Your task to perform on an android device: turn off javascript in the chrome app Image 0: 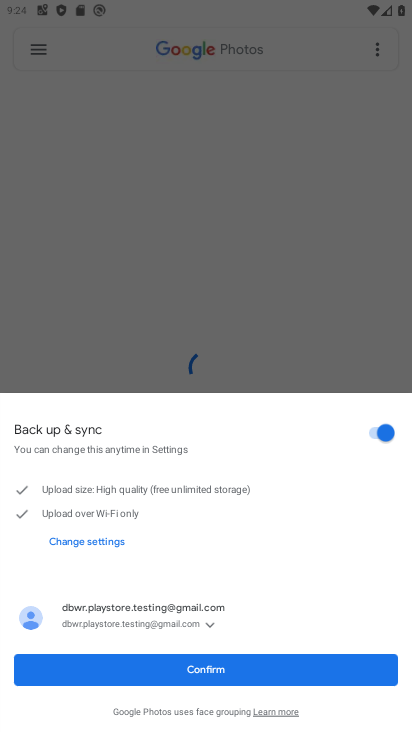
Step 0: press home button
Your task to perform on an android device: turn off javascript in the chrome app Image 1: 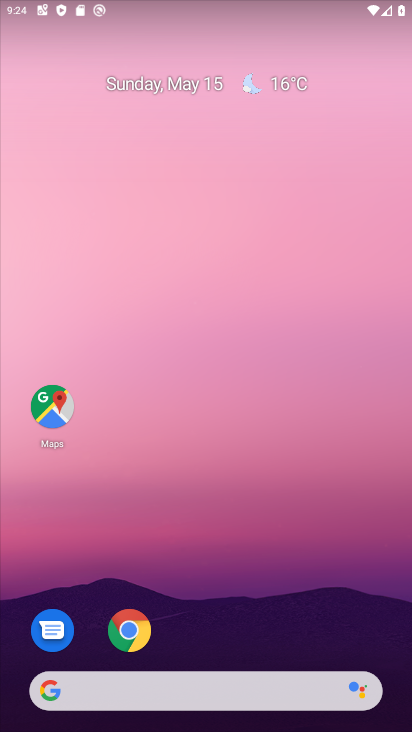
Step 1: click (145, 629)
Your task to perform on an android device: turn off javascript in the chrome app Image 2: 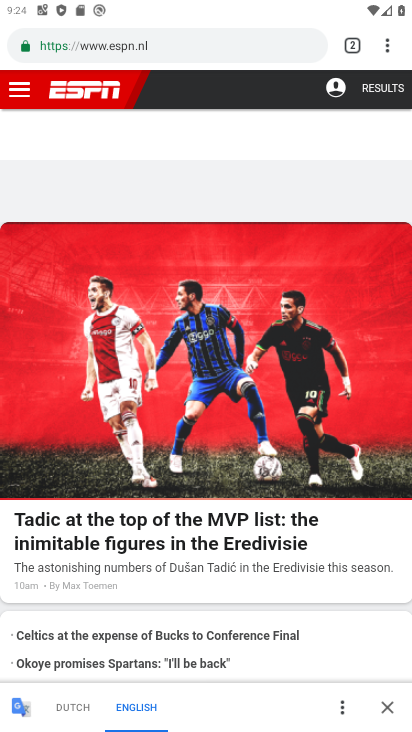
Step 2: drag from (381, 49) to (227, 505)
Your task to perform on an android device: turn off javascript in the chrome app Image 3: 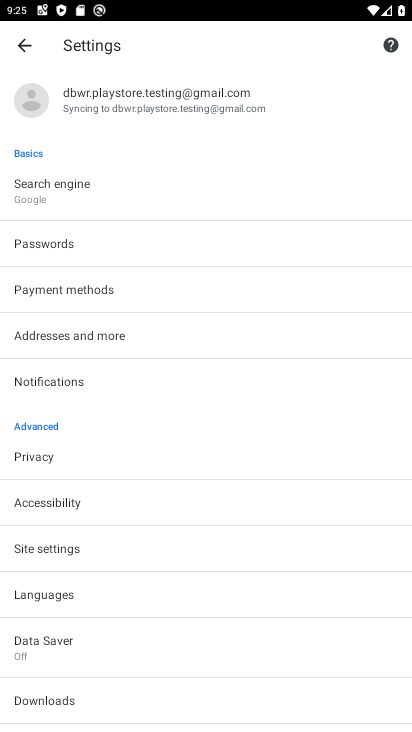
Step 3: click (103, 546)
Your task to perform on an android device: turn off javascript in the chrome app Image 4: 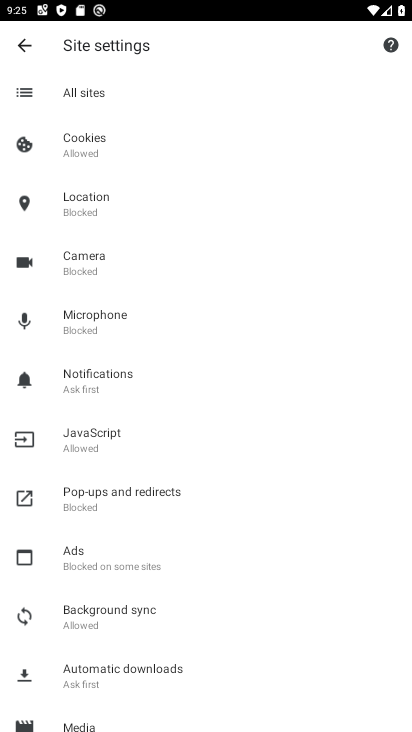
Step 4: click (114, 423)
Your task to perform on an android device: turn off javascript in the chrome app Image 5: 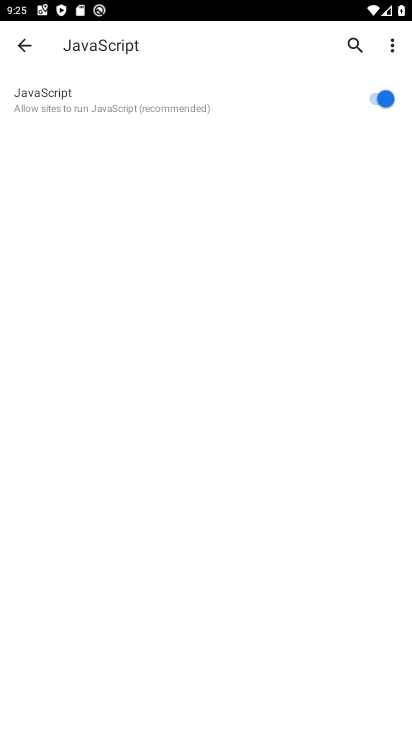
Step 5: click (367, 96)
Your task to perform on an android device: turn off javascript in the chrome app Image 6: 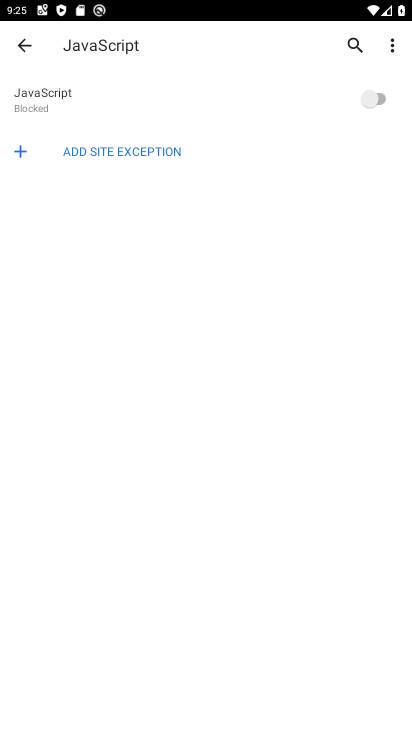
Step 6: task complete